Your task to perform on an android device: Toggle the flashlight Image 0: 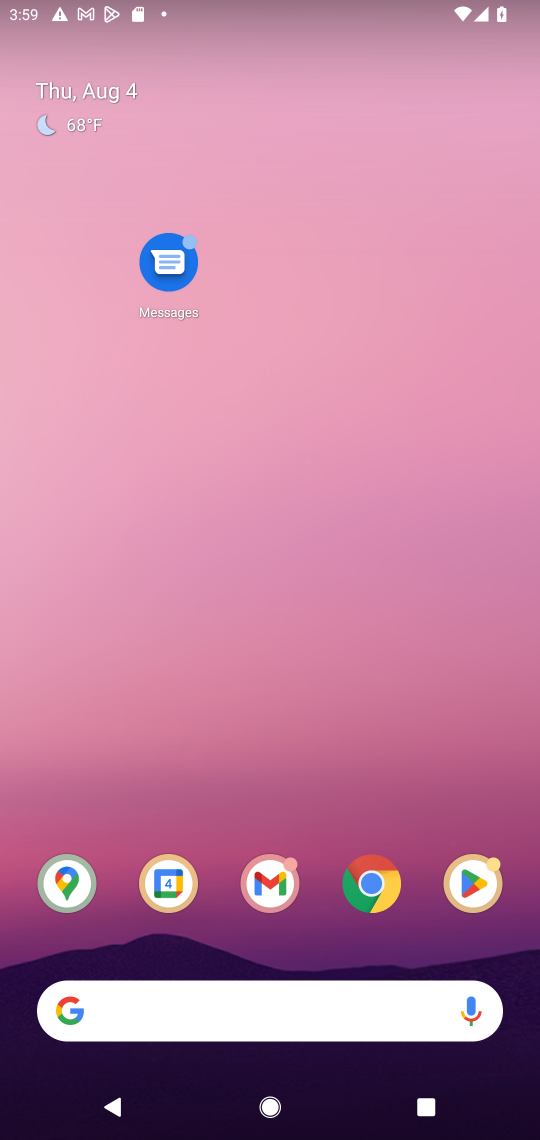
Step 0: drag from (334, 974) to (353, 124)
Your task to perform on an android device: Toggle the flashlight Image 1: 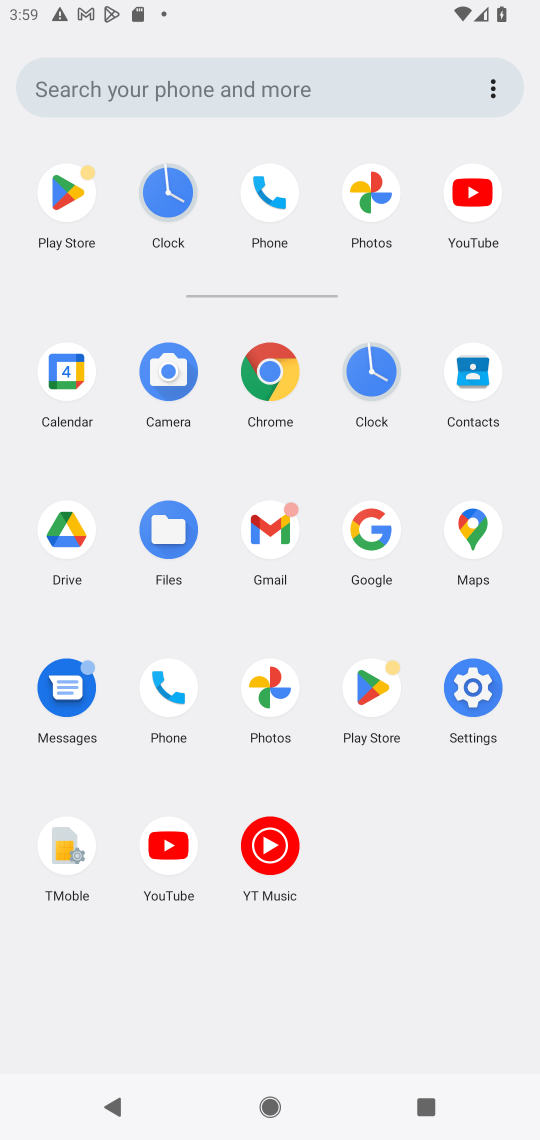
Step 1: click (484, 686)
Your task to perform on an android device: Toggle the flashlight Image 2: 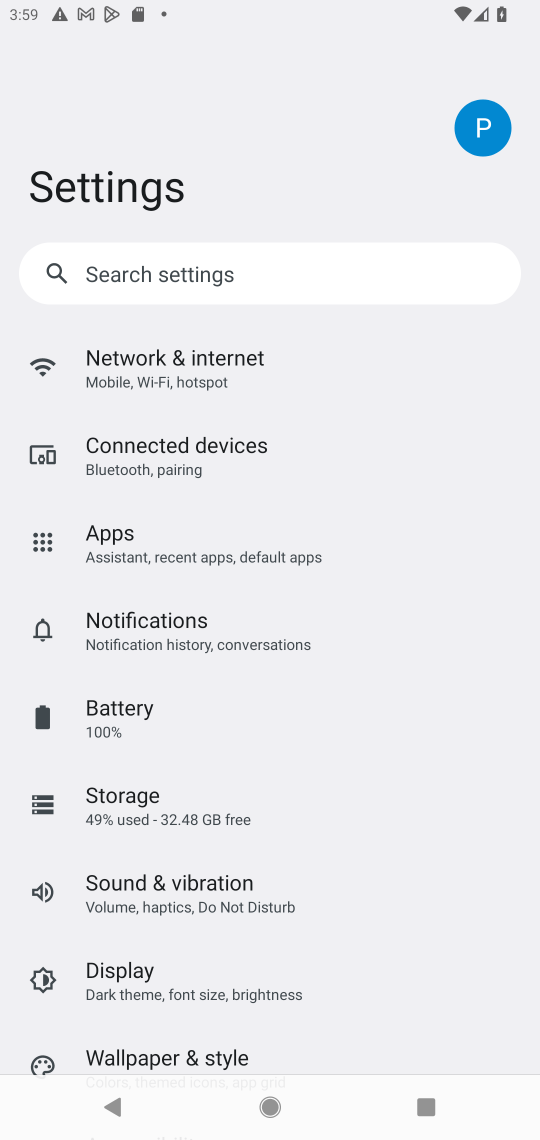
Step 2: task complete